Your task to perform on an android device: turn vacation reply on in the gmail app Image 0: 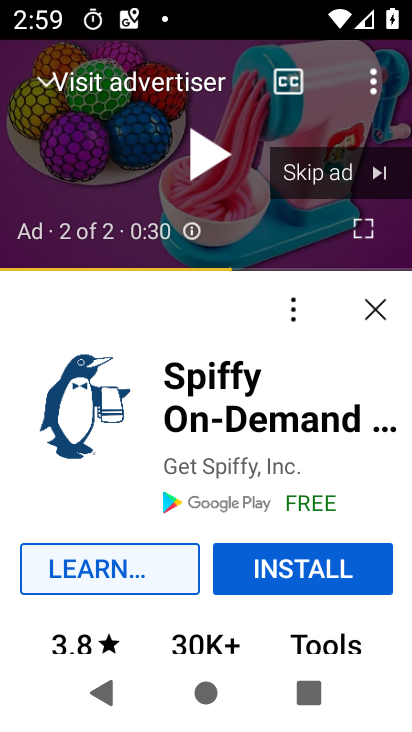
Step 0: press home button
Your task to perform on an android device: turn vacation reply on in the gmail app Image 1: 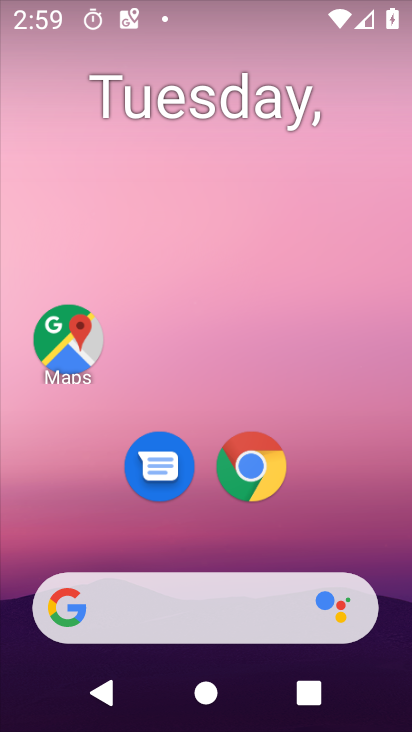
Step 1: drag from (364, 514) to (346, 92)
Your task to perform on an android device: turn vacation reply on in the gmail app Image 2: 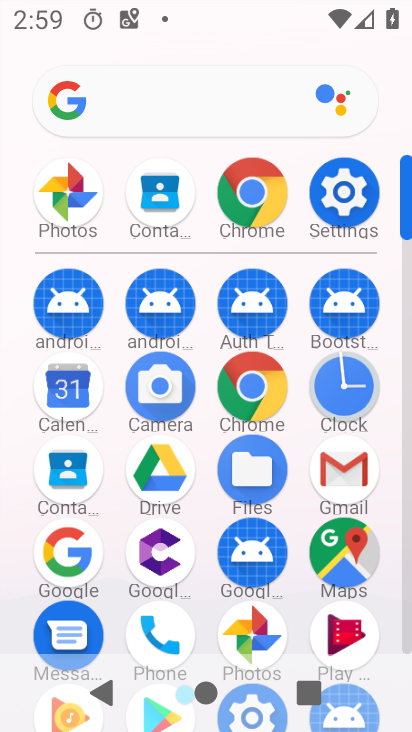
Step 2: click (365, 468)
Your task to perform on an android device: turn vacation reply on in the gmail app Image 3: 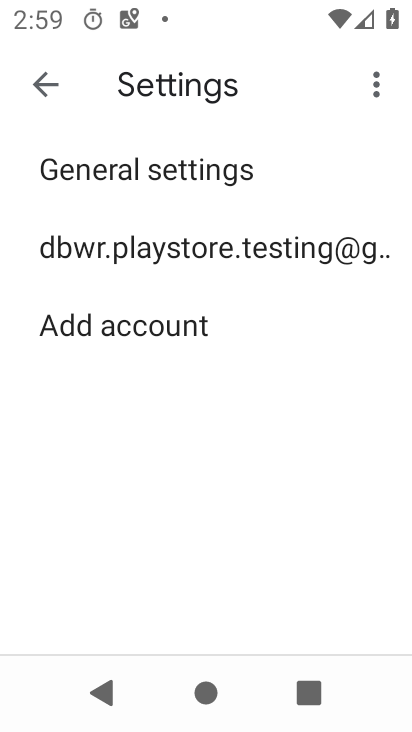
Step 3: click (186, 253)
Your task to perform on an android device: turn vacation reply on in the gmail app Image 4: 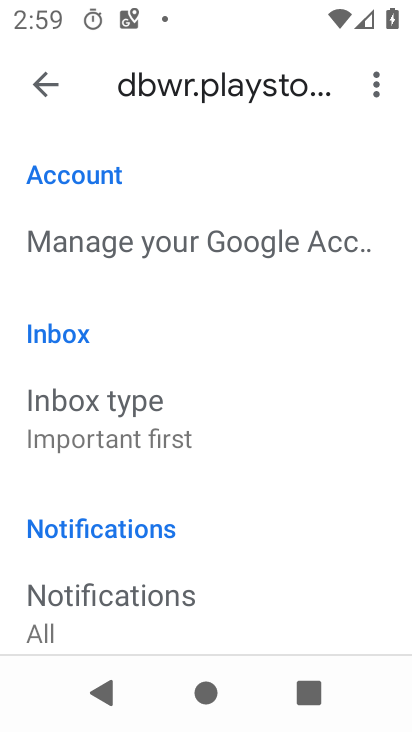
Step 4: drag from (340, 497) to (334, 387)
Your task to perform on an android device: turn vacation reply on in the gmail app Image 5: 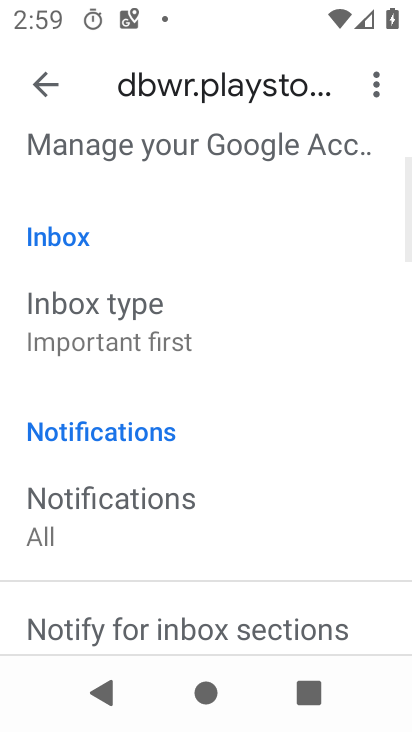
Step 5: drag from (346, 546) to (349, 383)
Your task to perform on an android device: turn vacation reply on in the gmail app Image 6: 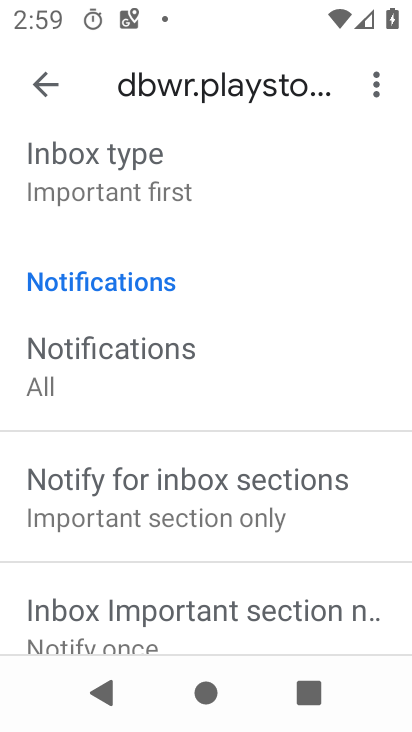
Step 6: drag from (363, 556) to (359, 437)
Your task to perform on an android device: turn vacation reply on in the gmail app Image 7: 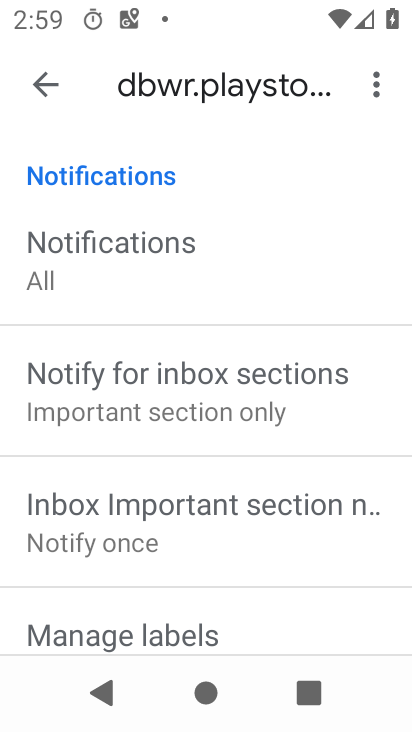
Step 7: drag from (349, 578) to (355, 468)
Your task to perform on an android device: turn vacation reply on in the gmail app Image 8: 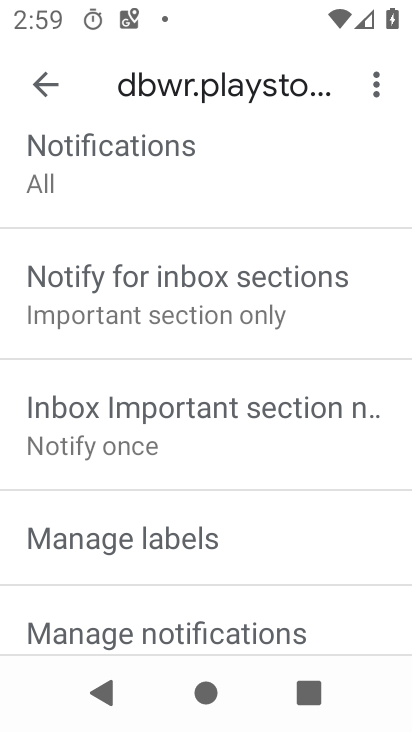
Step 8: drag from (347, 612) to (338, 459)
Your task to perform on an android device: turn vacation reply on in the gmail app Image 9: 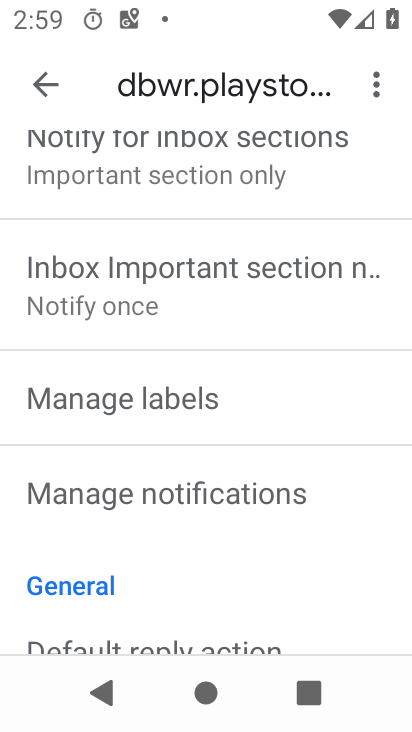
Step 9: drag from (333, 571) to (330, 408)
Your task to perform on an android device: turn vacation reply on in the gmail app Image 10: 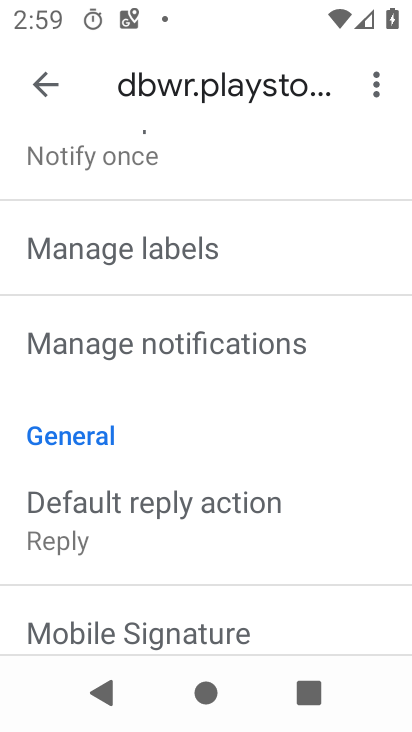
Step 10: drag from (335, 475) to (349, 333)
Your task to perform on an android device: turn vacation reply on in the gmail app Image 11: 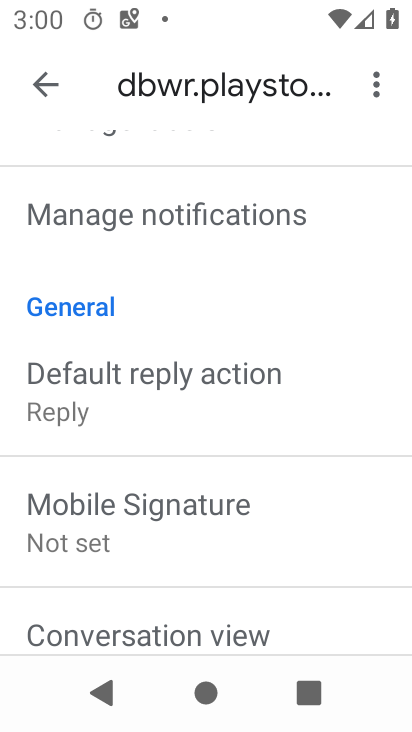
Step 11: drag from (332, 470) to (340, 354)
Your task to perform on an android device: turn vacation reply on in the gmail app Image 12: 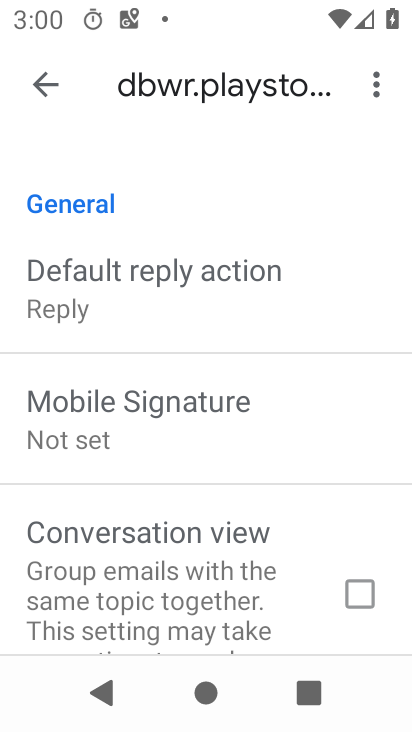
Step 12: drag from (311, 486) to (312, 364)
Your task to perform on an android device: turn vacation reply on in the gmail app Image 13: 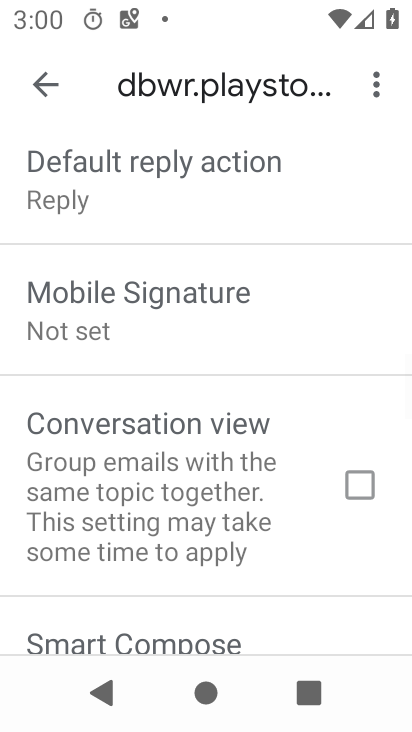
Step 13: drag from (301, 536) to (307, 354)
Your task to perform on an android device: turn vacation reply on in the gmail app Image 14: 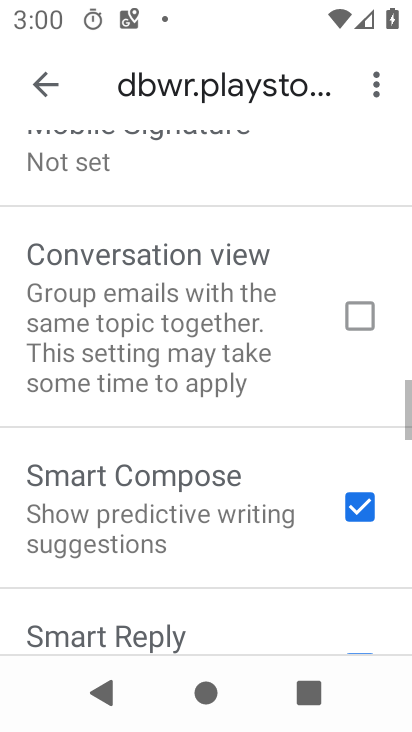
Step 14: drag from (283, 564) to (311, 387)
Your task to perform on an android device: turn vacation reply on in the gmail app Image 15: 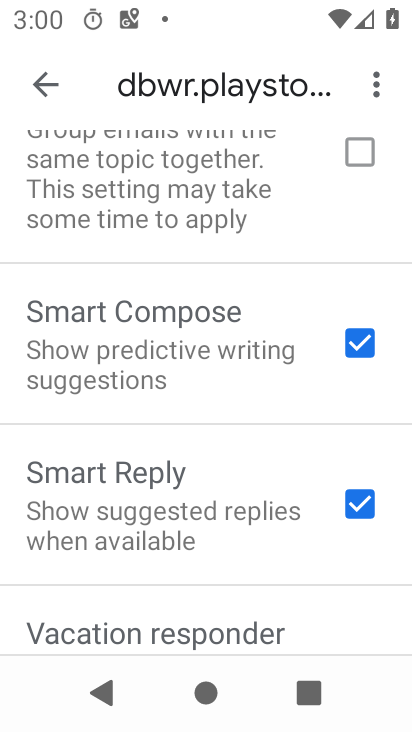
Step 15: drag from (299, 569) to (298, 420)
Your task to perform on an android device: turn vacation reply on in the gmail app Image 16: 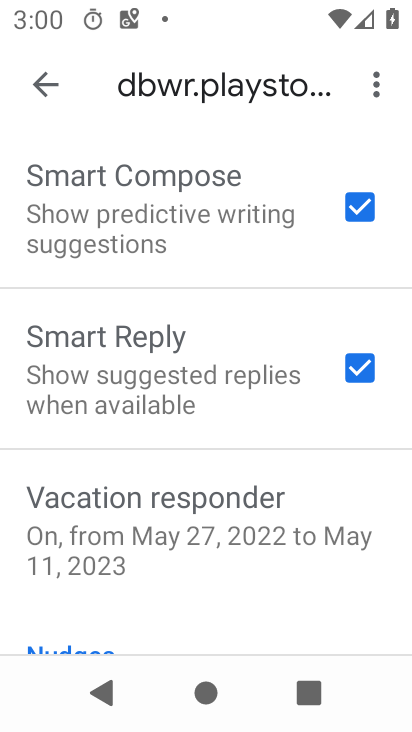
Step 16: click (257, 530)
Your task to perform on an android device: turn vacation reply on in the gmail app Image 17: 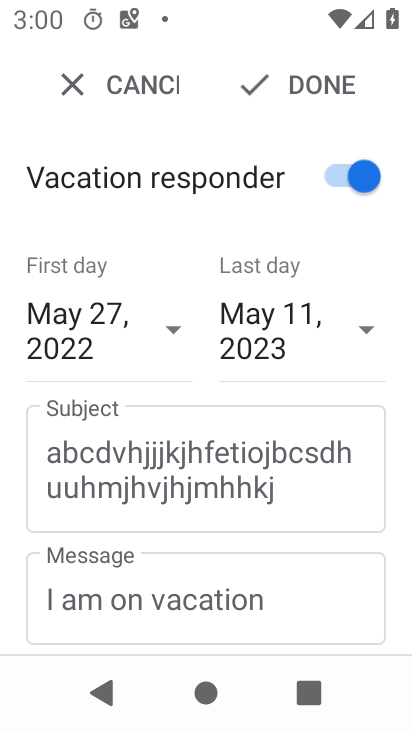
Step 17: task complete